Your task to perform on an android device: turn off notifications settings in the gmail app Image 0: 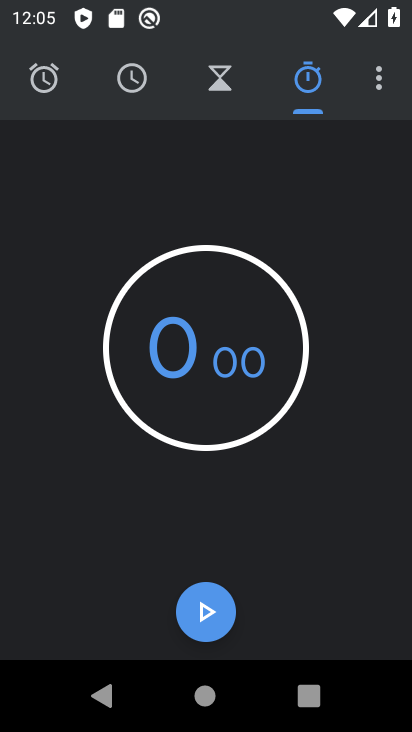
Step 0: press home button
Your task to perform on an android device: turn off notifications settings in the gmail app Image 1: 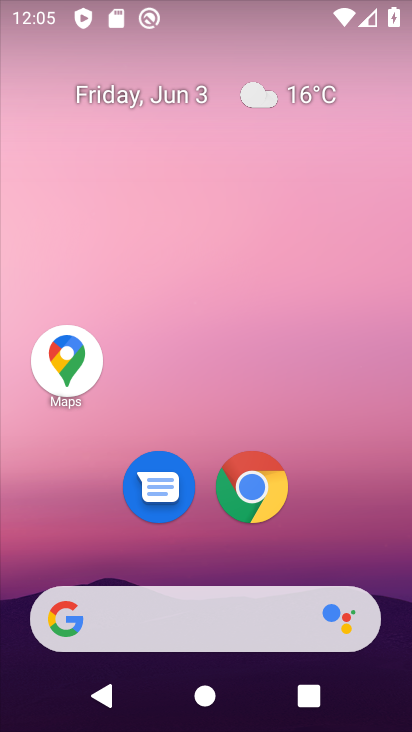
Step 1: drag from (340, 558) to (292, 251)
Your task to perform on an android device: turn off notifications settings in the gmail app Image 2: 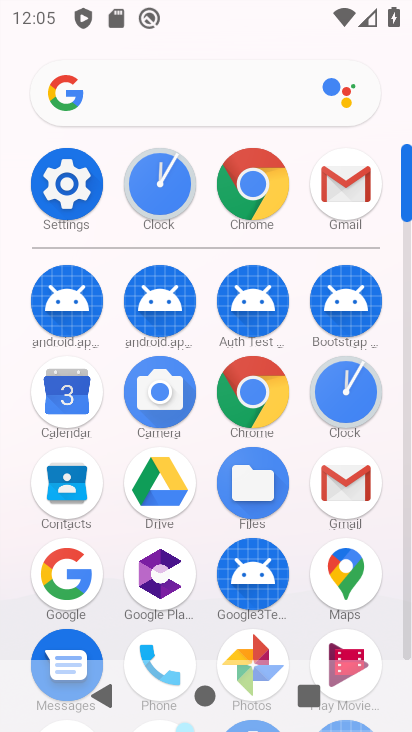
Step 2: click (336, 192)
Your task to perform on an android device: turn off notifications settings in the gmail app Image 3: 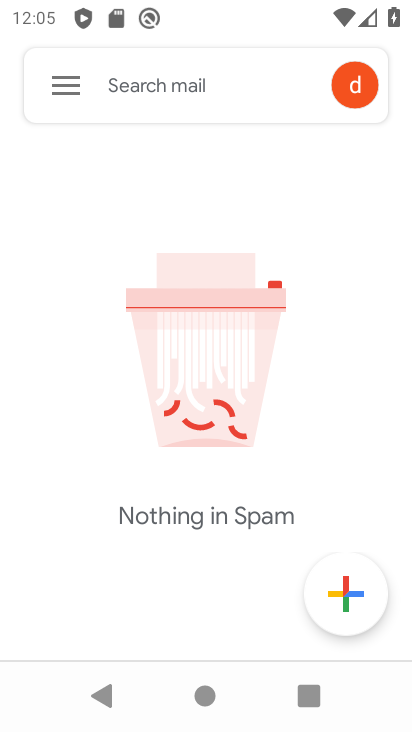
Step 3: click (64, 91)
Your task to perform on an android device: turn off notifications settings in the gmail app Image 4: 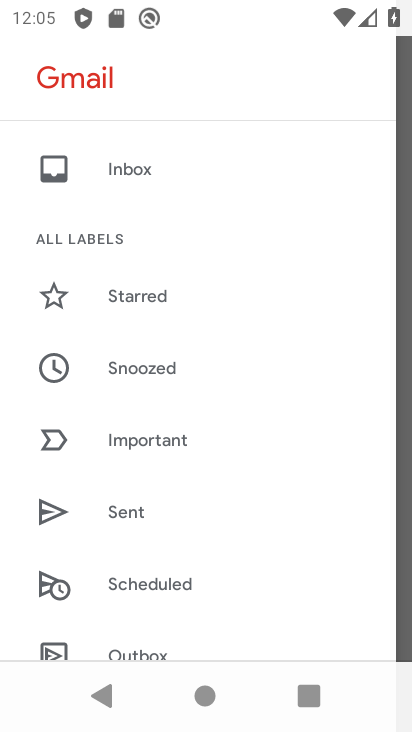
Step 4: drag from (312, 608) to (334, 23)
Your task to perform on an android device: turn off notifications settings in the gmail app Image 5: 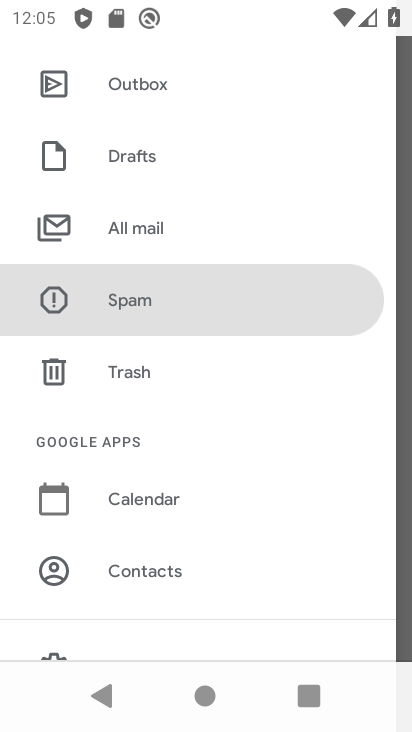
Step 5: drag from (324, 632) to (321, 156)
Your task to perform on an android device: turn off notifications settings in the gmail app Image 6: 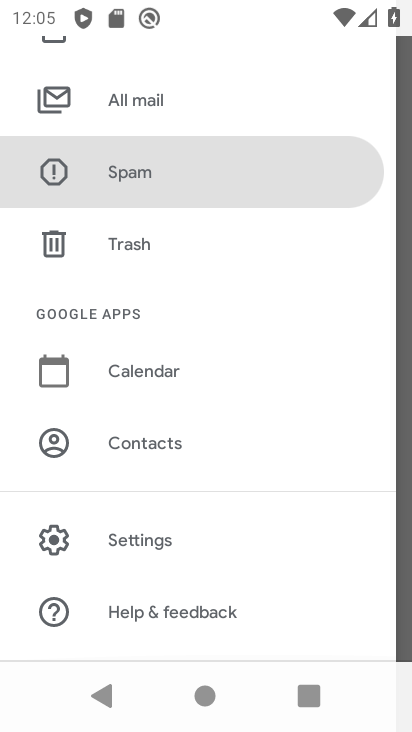
Step 6: click (194, 550)
Your task to perform on an android device: turn off notifications settings in the gmail app Image 7: 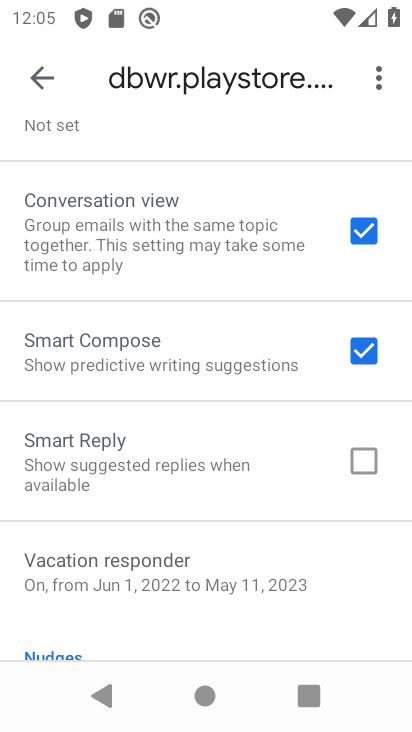
Step 7: drag from (237, 176) to (204, 583)
Your task to perform on an android device: turn off notifications settings in the gmail app Image 8: 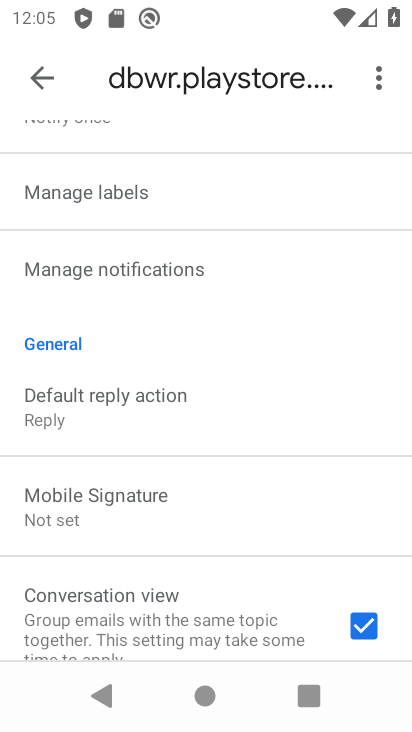
Step 8: click (166, 264)
Your task to perform on an android device: turn off notifications settings in the gmail app Image 9: 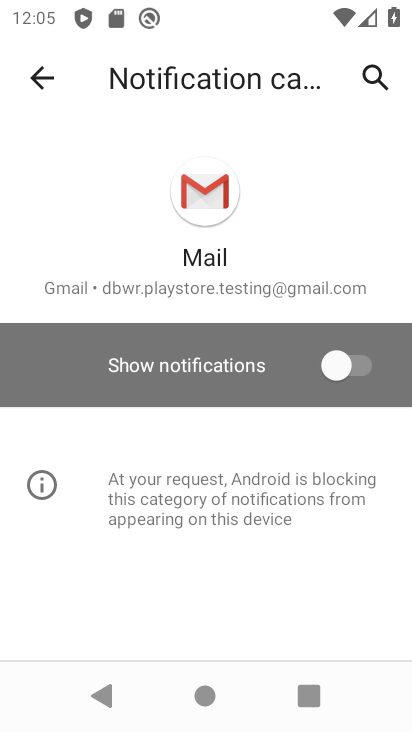
Step 9: task complete